Your task to perform on an android device: toggle location history Image 0: 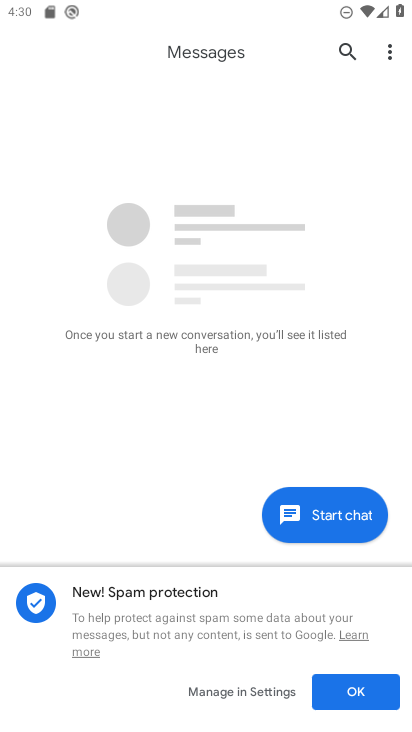
Step 0: press home button
Your task to perform on an android device: toggle location history Image 1: 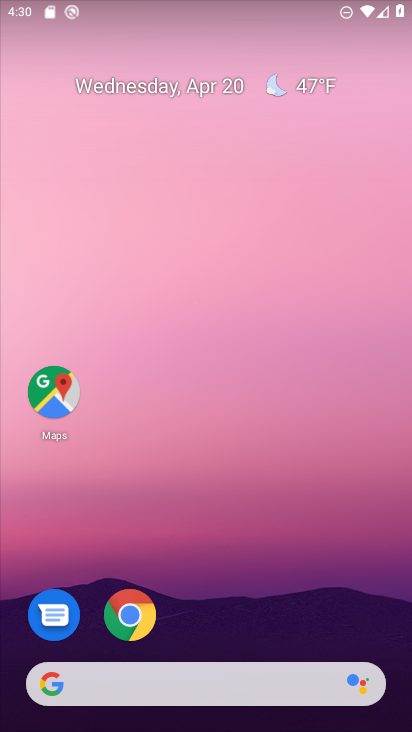
Step 1: drag from (273, 631) to (271, 25)
Your task to perform on an android device: toggle location history Image 2: 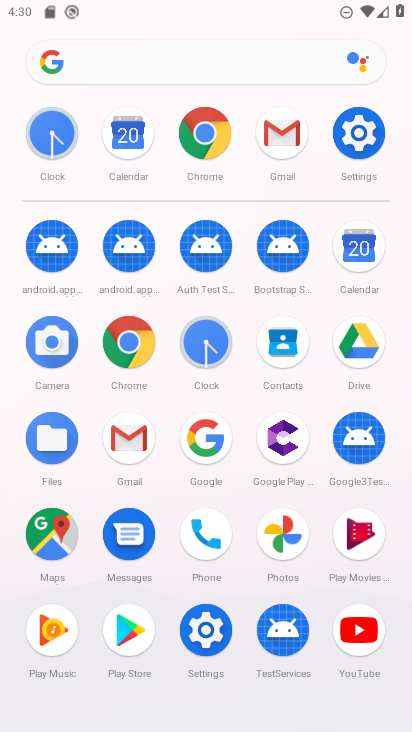
Step 2: click (356, 143)
Your task to perform on an android device: toggle location history Image 3: 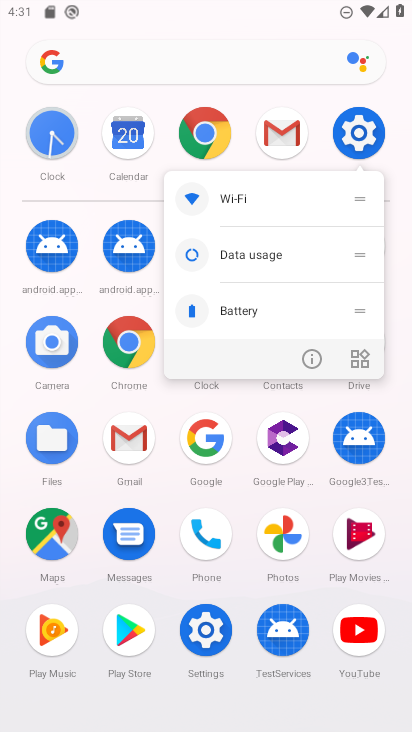
Step 3: click (358, 132)
Your task to perform on an android device: toggle location history Image 4: 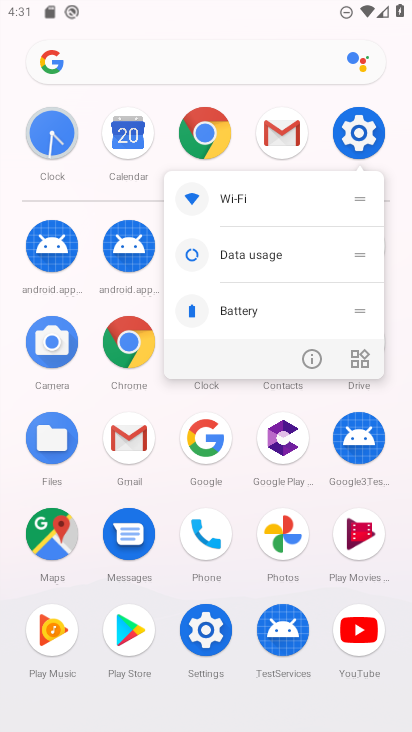
Step 4: click (358, 132)
Your task to perform on an android device: toggle location history Image 5: 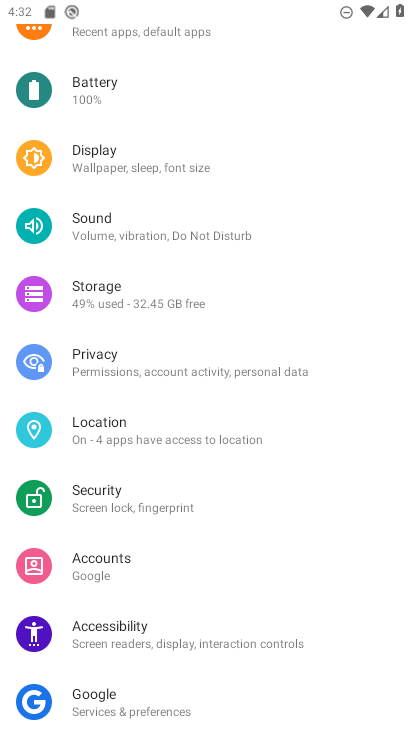
Step 5: click (131, 429)
Your task to perform on an android device: toggle location history Image 6: 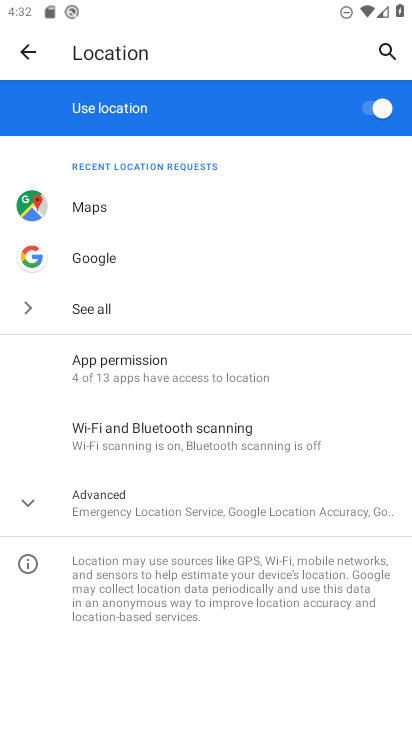
Step 6: click (133, 513)
Your task to perform on an android device: toggle location history Image 7: 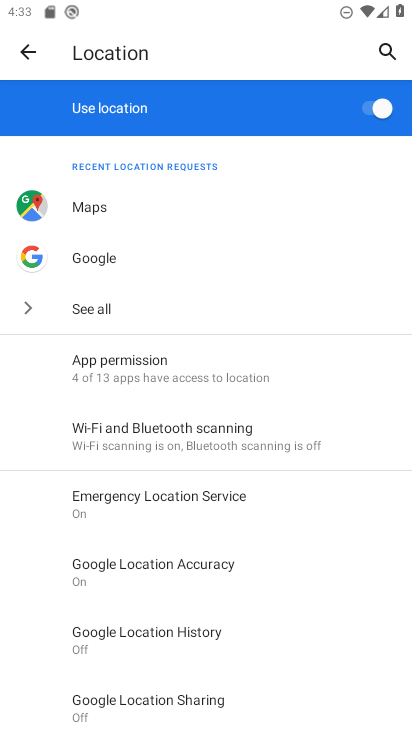
Step 7: click (197, 638)
Your task to perform on an android device: toggle location history Image 8: 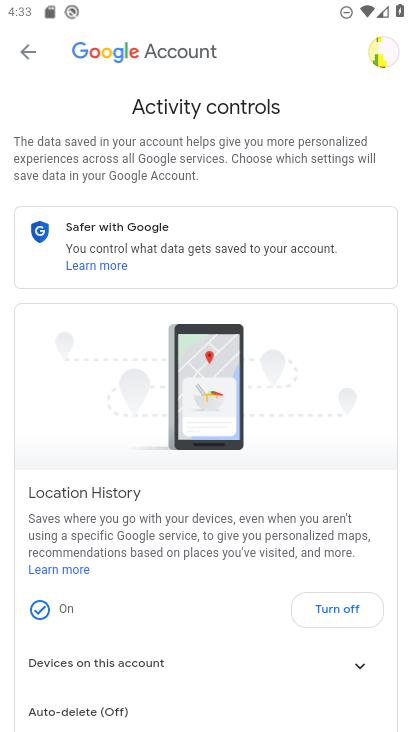
Step 8: click (338, 619)
Your task to perform on an android device: toggle location history Image 9: 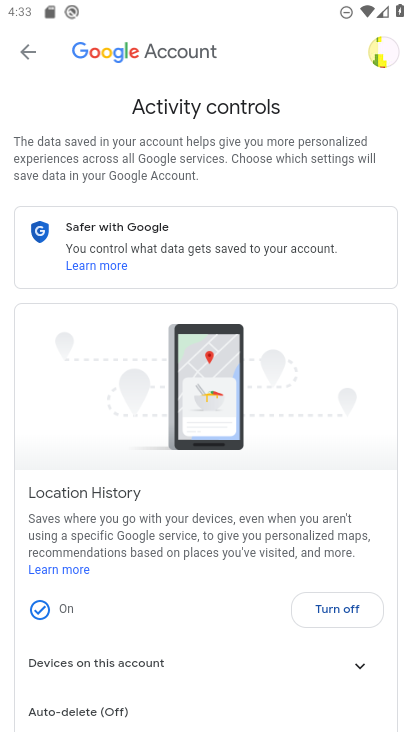
Step 9: click (338, 612)
Your task to perform on an android device: toggle location history Image 10: 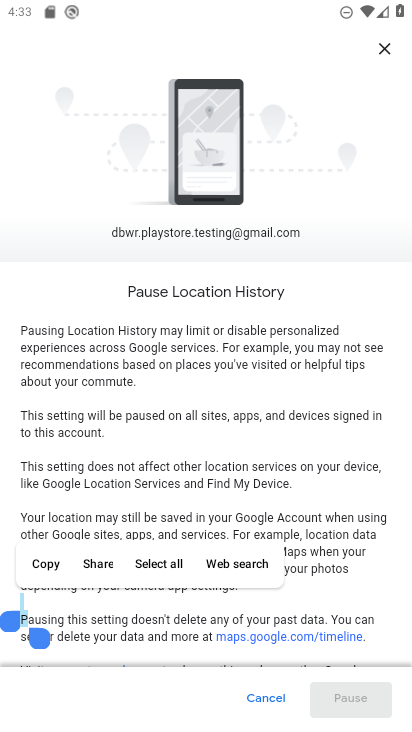
Step 10: drag from (324, 614) to (277, 120)
Your task to perform on an android device: toggle location history Image 11: 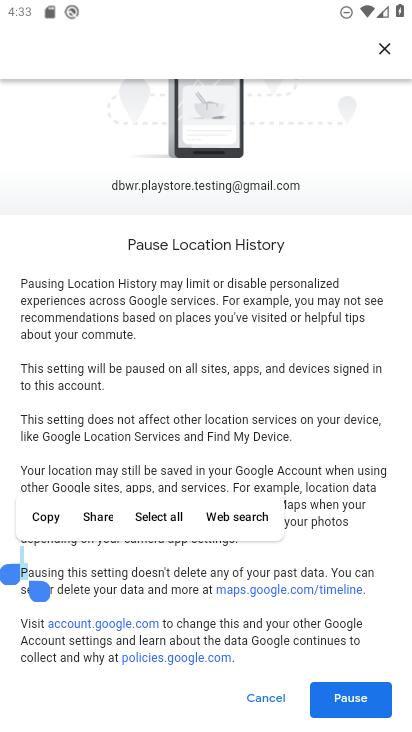
Step 11: click (353, 702)
Your task to perform on an android device: toggle location history Image 12: 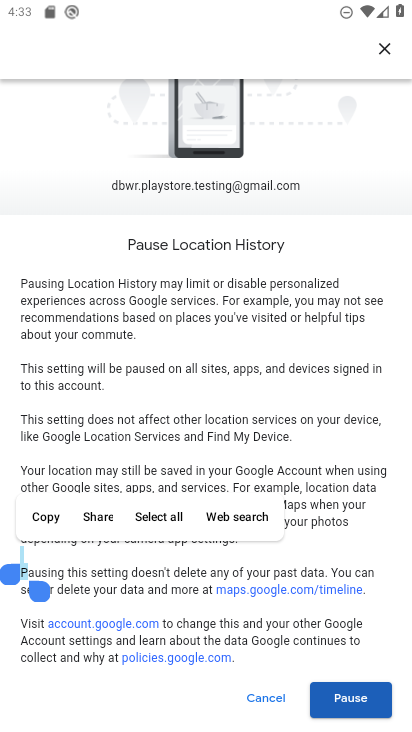
Step 12: click (362, 706)
Your task to perform on an android device: toggle location history Image 13: 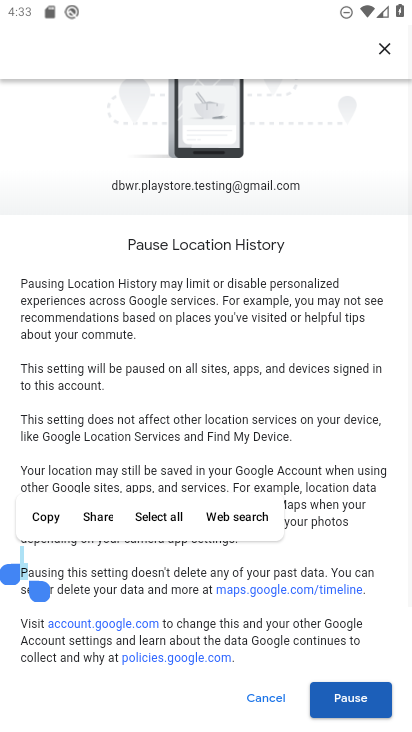
Step 13: task complete